Your task to perform on an android device: read, delete, or share a saved page in the chrome app Image 0: 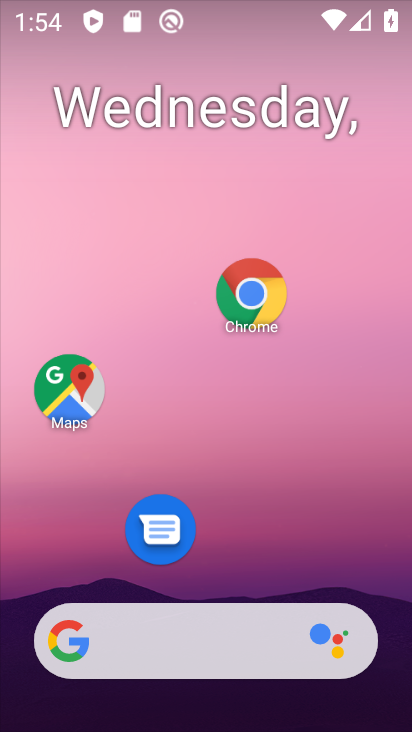
Step 0: click (224, 463)
Your task to perform on an android device: read, delete, or share a saved page in the chrome app Image 1: 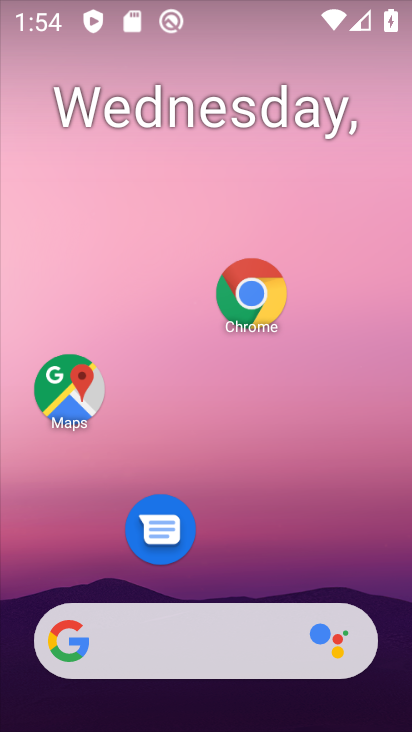
Step 1: click (260, 293)
Your task to perform on an android device: read, delete, or share a saved page in the chrome app Image 2: 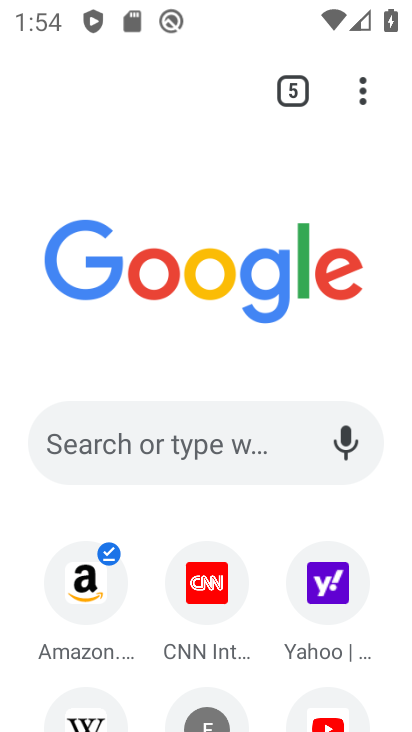
Step 2: click (369, 95)
Your task to perform on an android device: read, delete, or share a saved page in the chrome app Image 3: 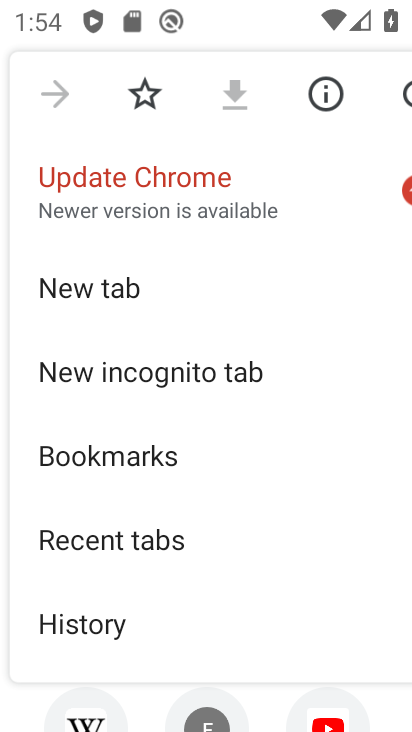
Step 3: drag from (216, 544) to (232, 349)
Your task to perform on an android device: read, delete, or share a saved page in the chrome app Image 4: 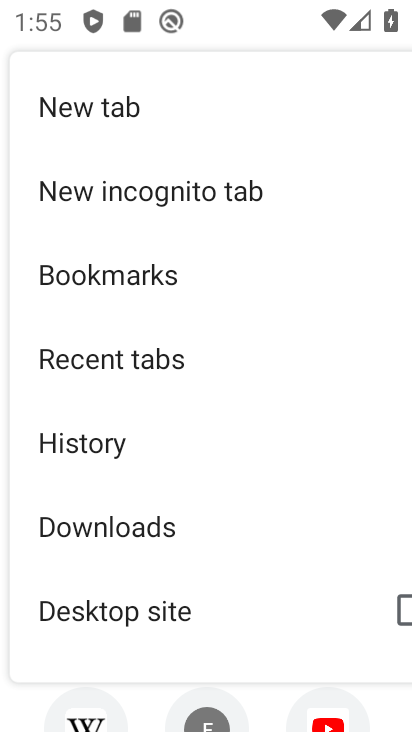
Step 4: drag from (188, 528) to (199, 429)
Your task to perform on an android device: read, delete, or share a saved page in the chrome app Image 5: 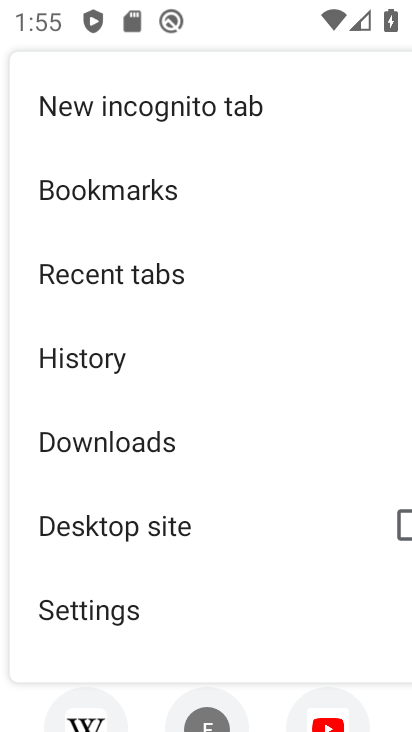
Step 5: click (135, 460)
Your task to perform on an android device: read, delete, or share a saved page in the chrome app Image 6: 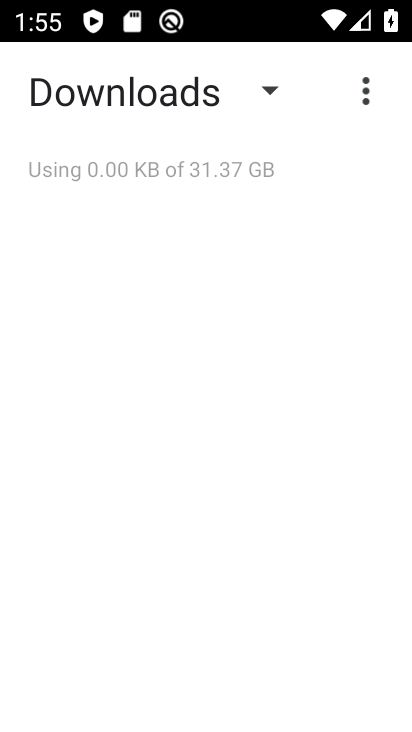
Step 6: click (133, 460)
Your task to perform on an android device: read, delete, or share a saved page in the chrome app Image 7: 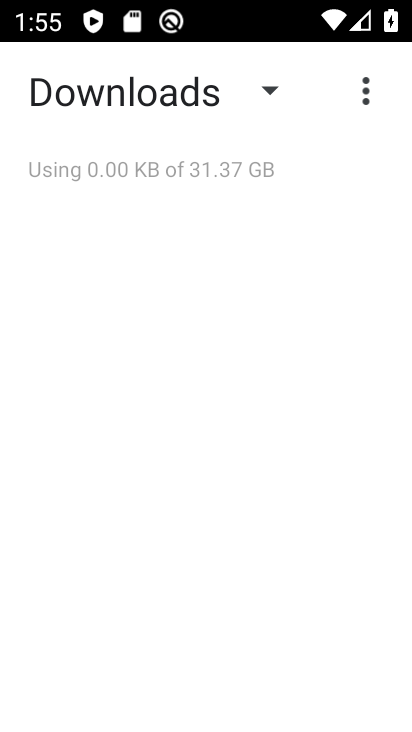
Step 7: click (268, 101)
Your task to perform on an android device: read, delete, or share a saved page in the chrome app Image 8: 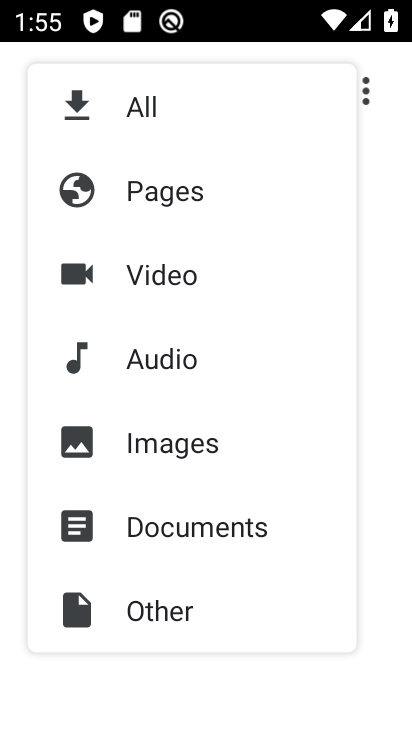
Step 8: click (206, 201)
Your task to perform on an android device: read, delete, or share a saved page in the chrome app Image 9: 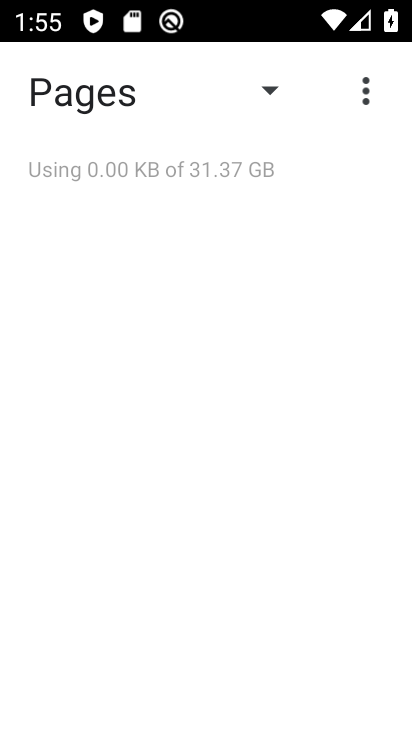
Step 9: task complete